Your task to perform on an android device: allow cookies in the chrome app Image 0: 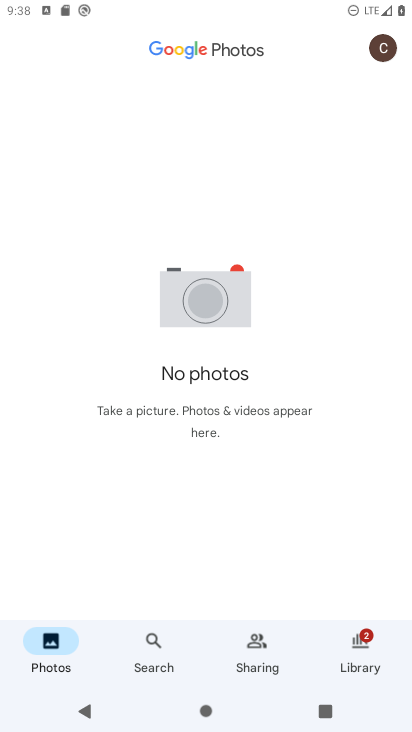
Step 0: press home button
Your task to perform on an android device: allow cookies in the chrome app Image 1: 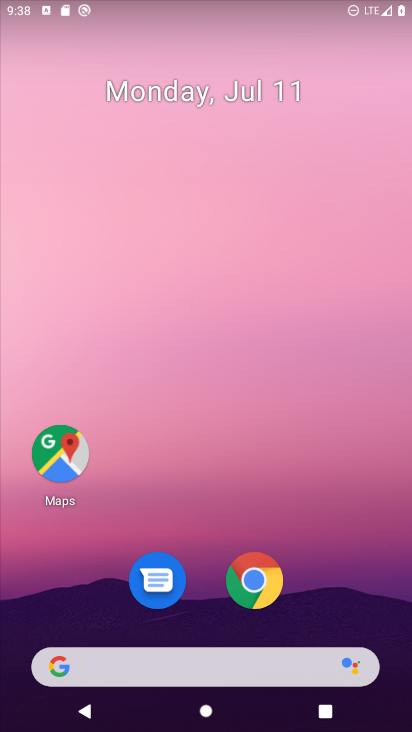
Step 1: click (264, 572)
Your task to perform on an android device: allow cookies in the chrome app Image 2: 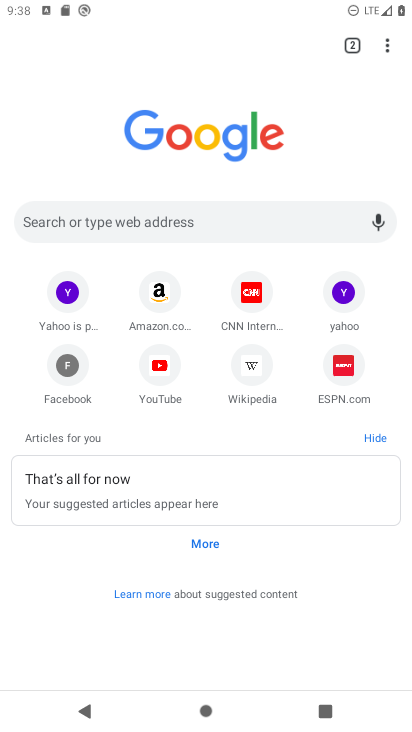
Step 2: click (393, 43)
Your task to perform on an android device: allow cookies in the chrome app Image 3: 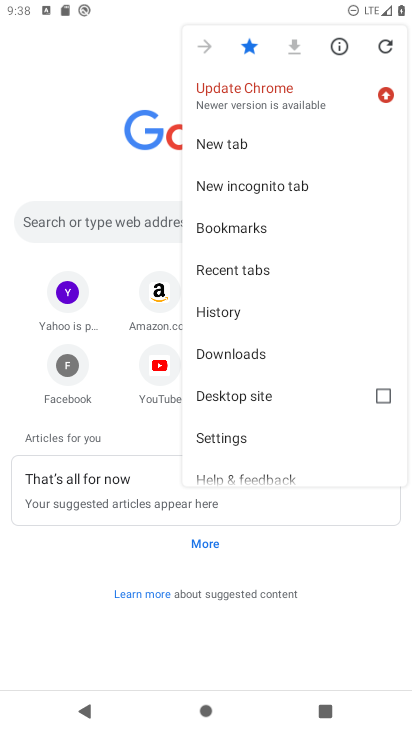
Step 3: click (245, 435)
Your task to perform on an android device: allow cookies in the chrome app Image 4: 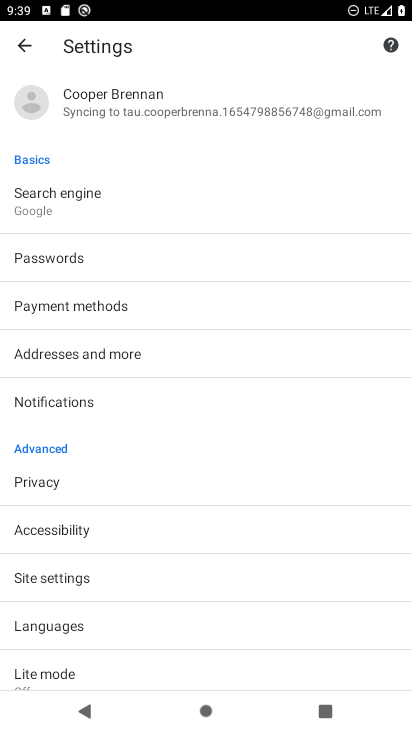
Step 4: click (153, 572)
Your task to perform on an android device: allow cookies in the chrome app Image 5: 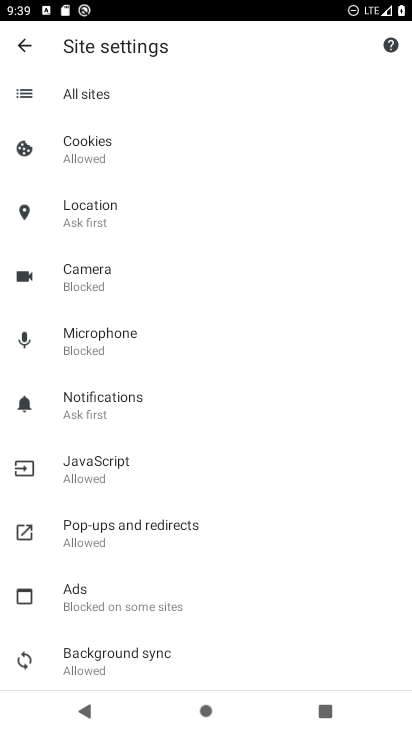
Step 5: click (151, 158)
Your task to perform on an android device: allow cookies in the chrome app Image 6: 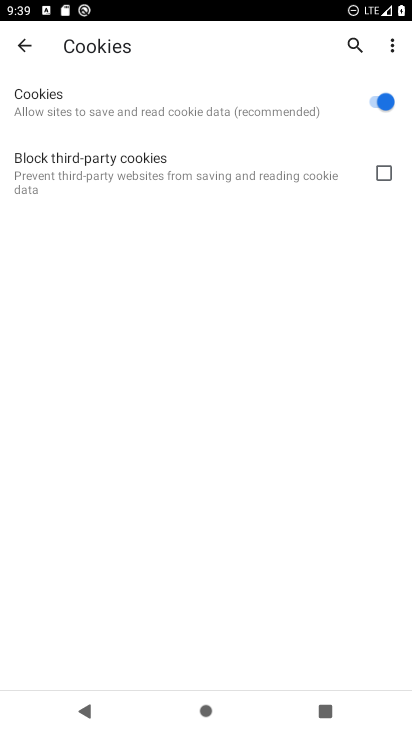
Step 6: task complete